Your task to perform on an android device: allow notifications from all sites in the chrome app Image 0: 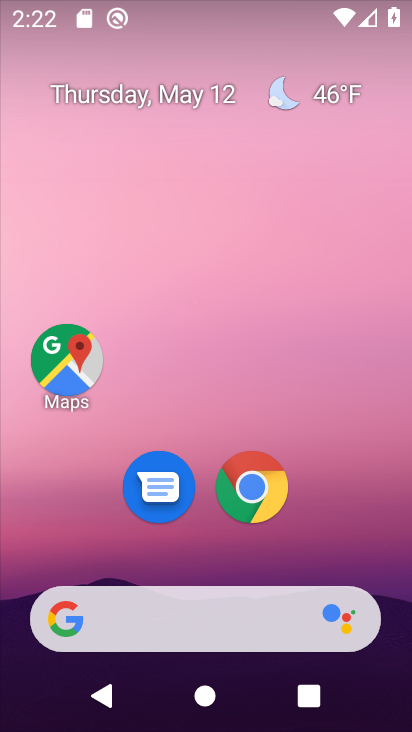
Step 0: click (261, 491)
Your task to perform on an android device: allow notifications from all sites in the chrome app Image 1: 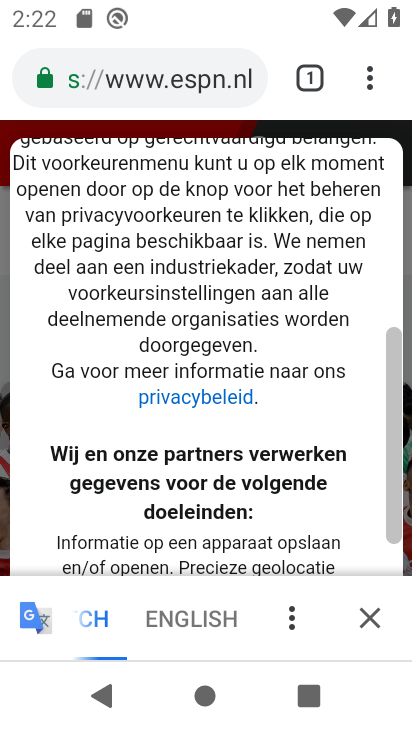
Step 1: click (386, 79)
Your task to perform on an android device: allow notifications from all sites in the chrome app Image 2: 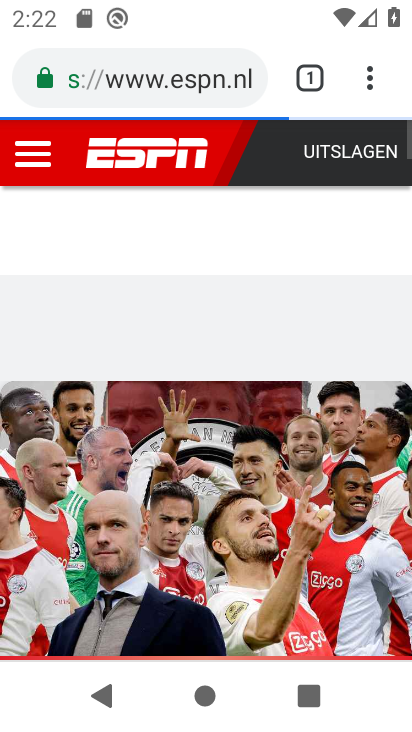
Step 2: click (371, 74)
Your task to perform on an android device: allow notifications from all sites in the chrome app Image 3: 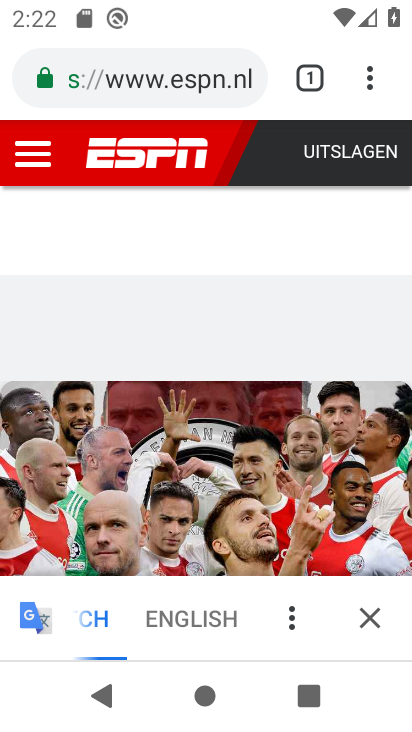
Step 3: click (371, 74)
Your task to perform on an android device: allow notifications from all sites in the chrome app Image 4: 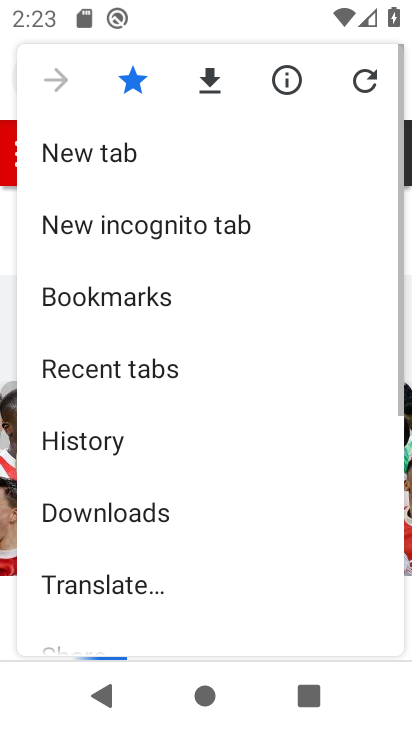
Step 4: drag from (238, 533) to (211, 135)
Your task to perform on an android device: allow notifications from all sites in the chrome app Image 5: 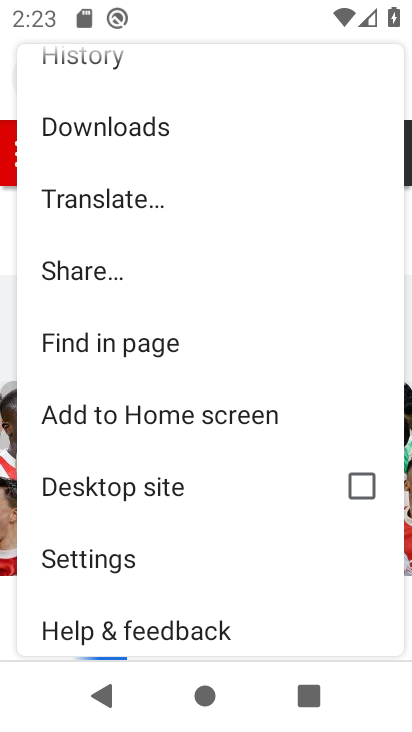
Step 5: click (184, 551)
Your task to perform on an android device: allow notifications from all sites in the chrome app Image 6: 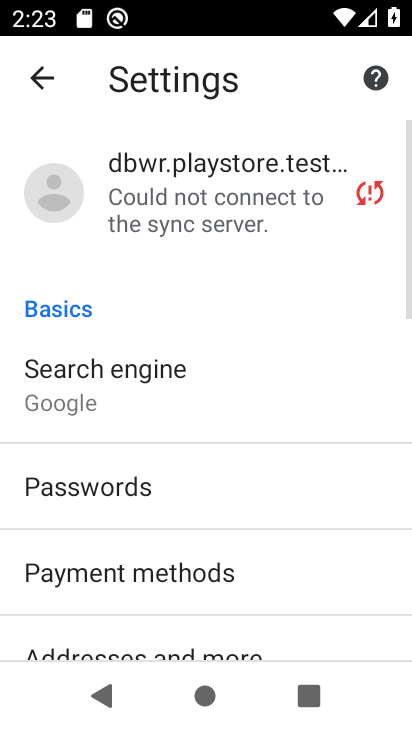
Step 6: drag from (179, 587) to (148, 207)
Your task to perform on an android device: allow notifications from all sites in the chrome app Image 7: 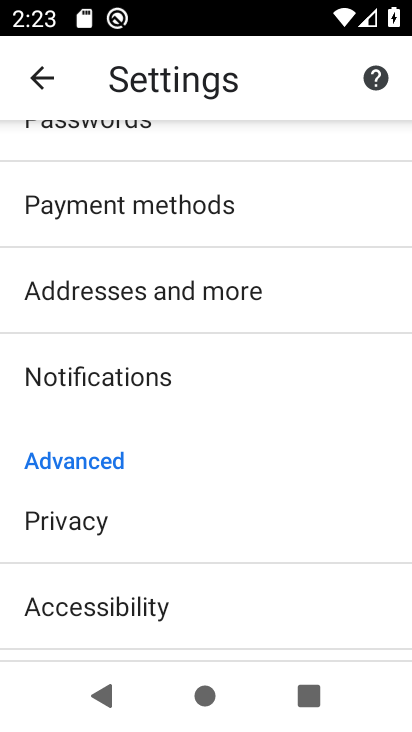
Step 7: click (101, 378)
Your task to perform on an android device: allow notifications from all sites in the chrome app Image 8: 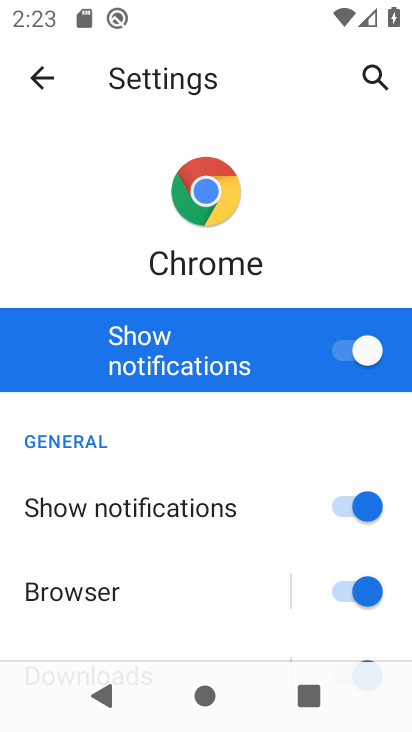
Step 8: task complete